Your task to perform on an android device: turn smart compose on in the gmail app Image 0: 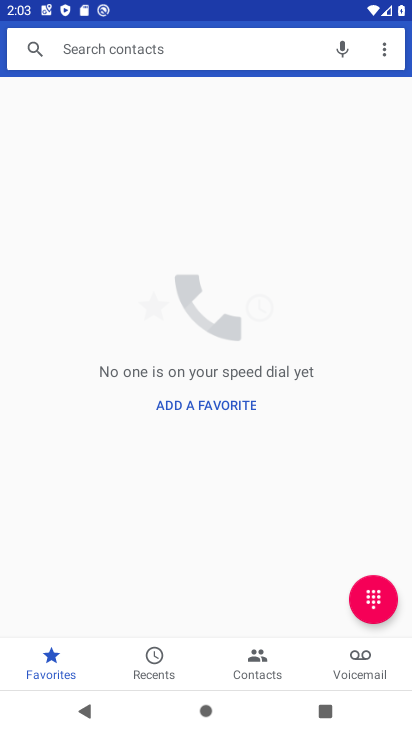
Step 0: press home button
Your task to perform on an android device: turn smart compose on in the gmail app Image 1: 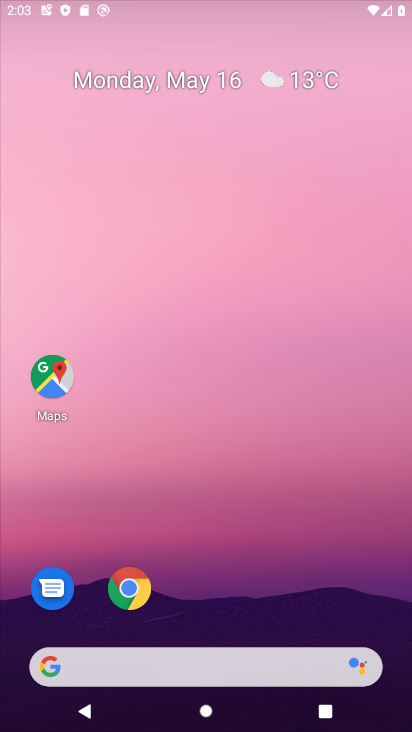
Step 1: drag from (194, 674) to (186, 31)
Your task to perform on an android device: turn smart compose on in the gmail app Image 2: 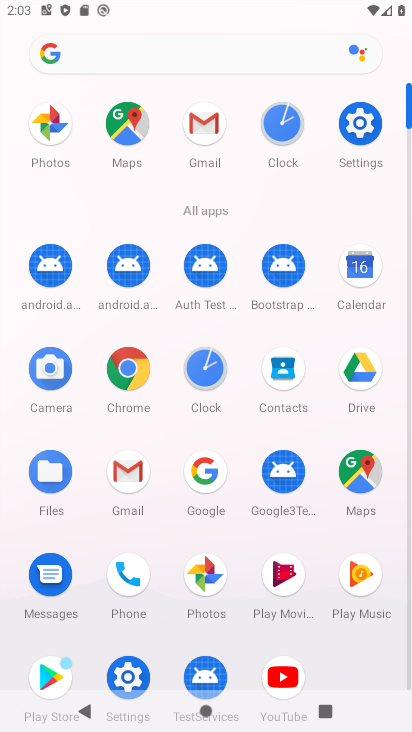
Step 2: click (139, 467)
Your task to perform on an android device: turn smart compose on in the gmail app Image 3: 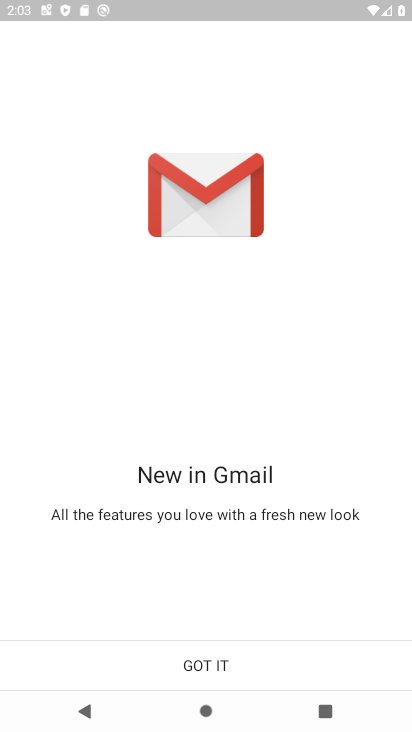
Step 3: click (258, 677)
Your task to perform on an android device: turn smart compose on in the gmail app Image 4: 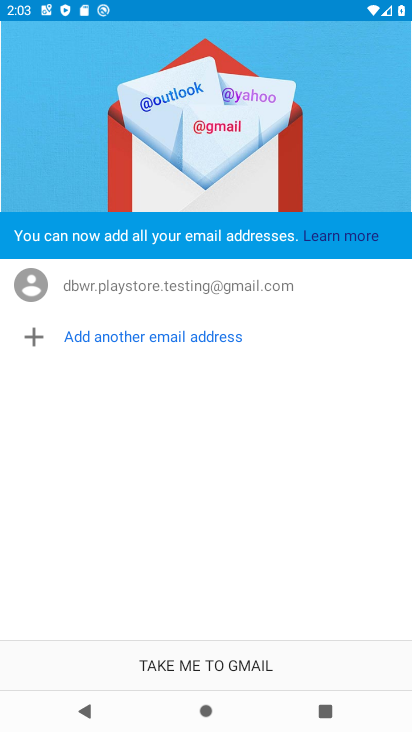
Step 4: click (258, 677)
Your task to perform on an android device: turn smart compose on in the gmail app Image 5: 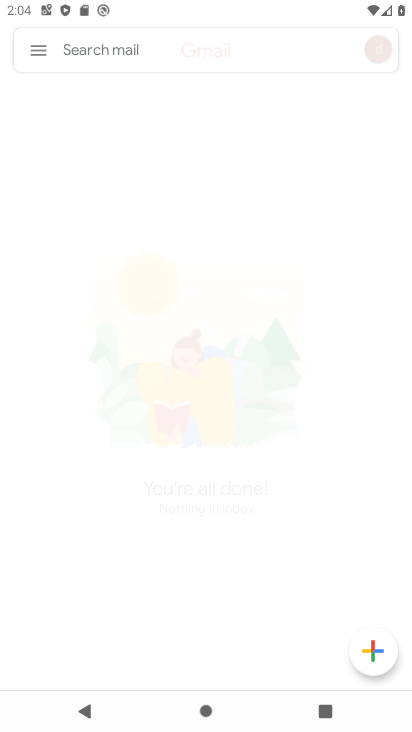
Step 5: click (48, 49)
Your task to perform on an android device: turn smart compose on in the gmail app Image 6: 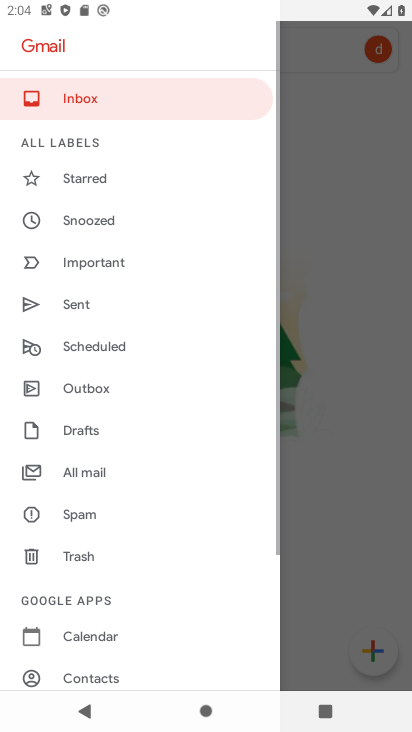
Step 6: drag from (184, 663) to (155, 257)
Your task to perform on an android device: turn smart compose on in the gmail app Image 7: 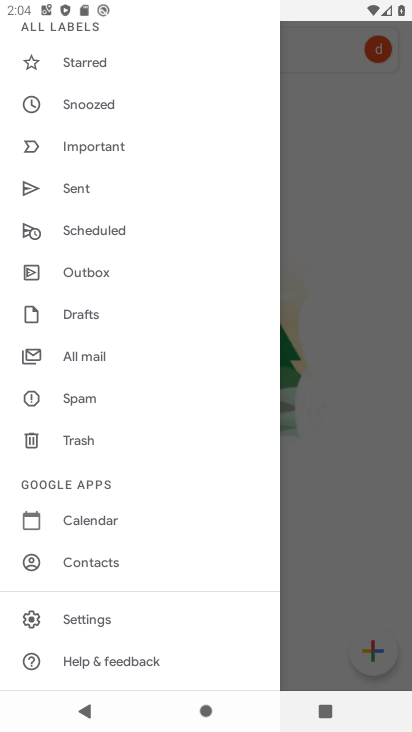
Step 7: click (118, 627)
Your task to perform on an android device: turn smart compose on in the gmail app Image 8: 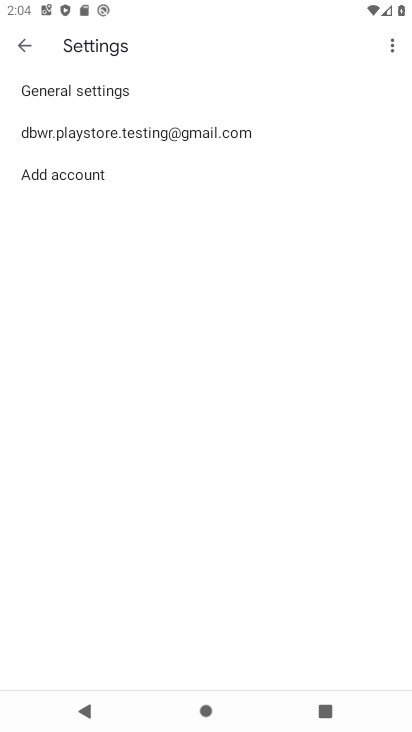
Step 8: click (109, 136)
Your task to perform on an android device: turn smart compose on in the gmail app Image 9: 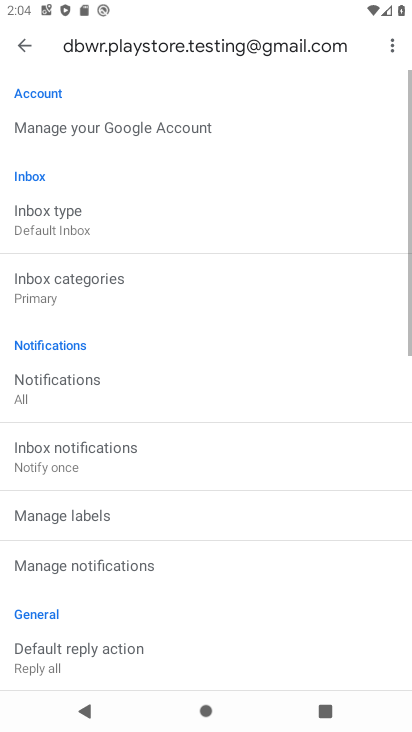
Step 9: task complete